Your task to perform on an android device: Open Google Chrome and click the shortcut for Amazon.com Image 0: 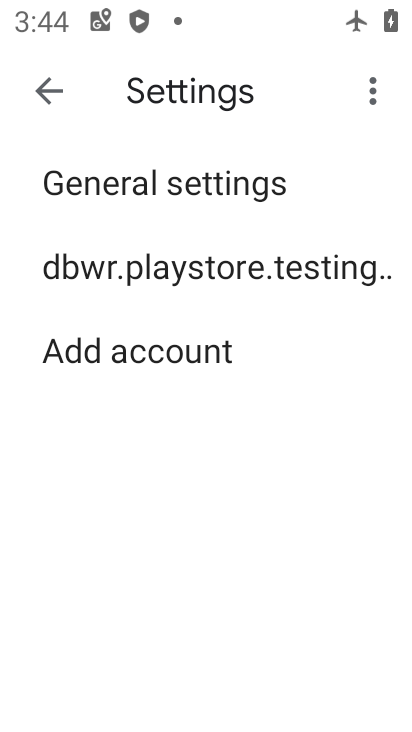
Step 0: press home button
Your task to perform on an android device: Open Google Chrome and click the shortcut for Amazon.com Image 1: 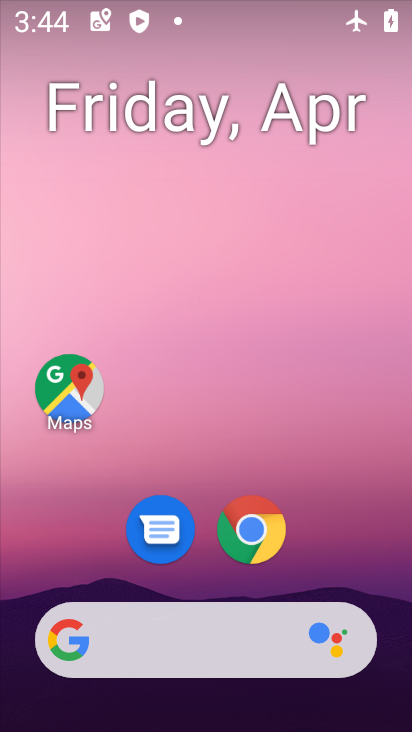
Step 1: click (262, 522)
Your task to perform on an android device: Open Google Chrome and click the shortcut for Amazon.com Image 2: 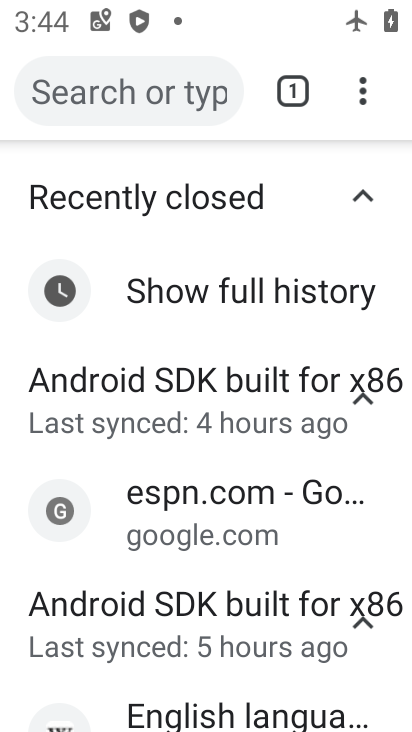
Step 2: click (359, 99)
Your task to perform on an android device: Open Google Chrome and click the shortcut for Amazon.com Image 3: 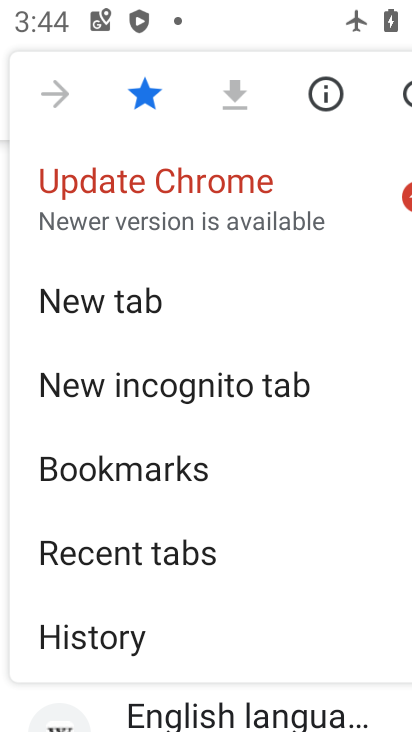
Step 3: click (187, 319)
Your task to perform on an android device: Open Google Chrome and click the shortcut for Amazon.com Image 4: 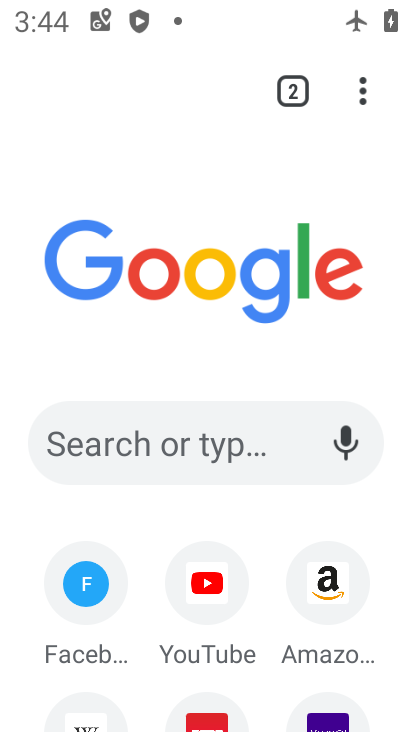
Step 4: click (311, 578)
Your task to perform on an android device: Open Google Chrome and click the shortcut for Amazon.com Image 5: 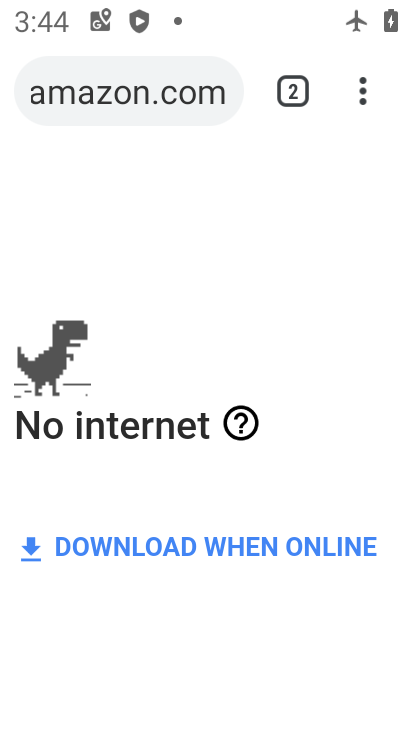
Step 5: task complete